Your task to perform on an android device: Open Google Maps and go to "Timeline" Image 0: 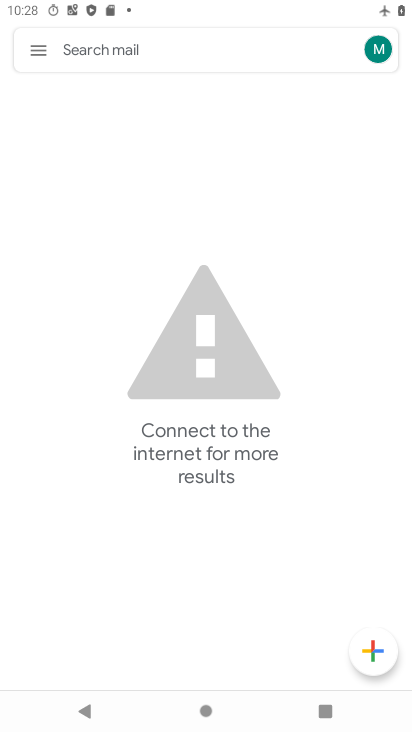
Step 0: press home button
Your task to perform on an android device: Open Google Maps and go to "Timeline" Image 1: 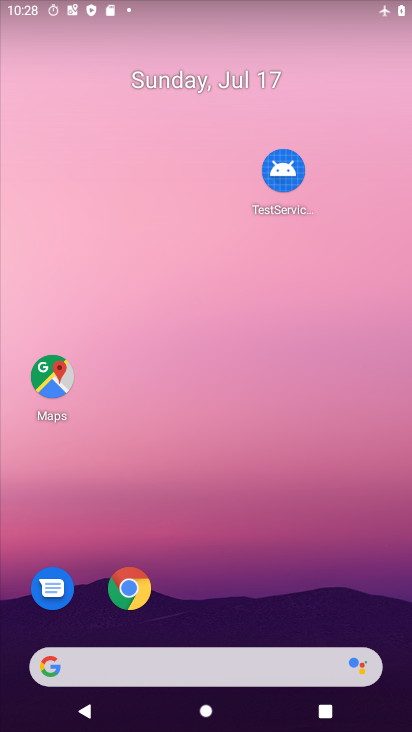
Step 1: drag from (199, 574) to (282, 177)
Your task to perform on an android device: Open Google Maps and go to "Timeline" Image 2: 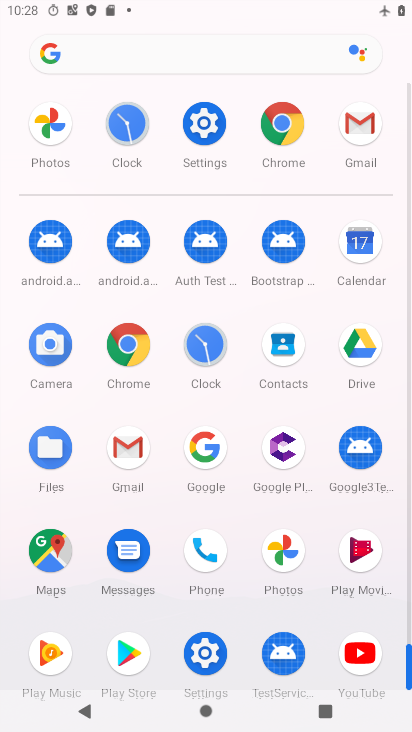
Step 2: drag from (239, 473) to (260, 186)
Your task to perform on an android device: Open Google Maps and go to "Timeline" Image 3: 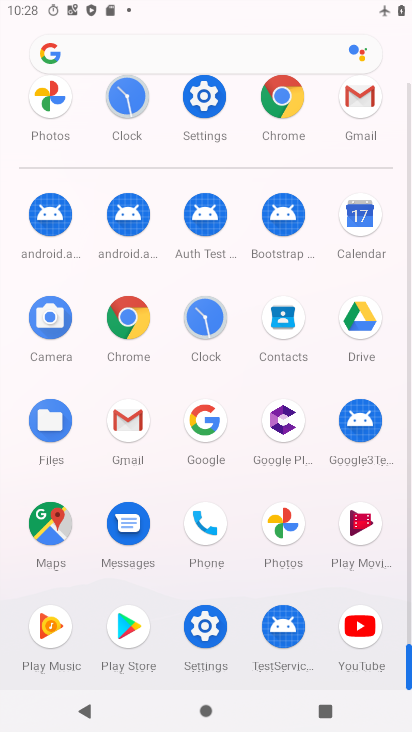
Step 3: click (60, 532)
Your task to perform on an android device: Open Google Maps and go to "Timeline" Image 4: 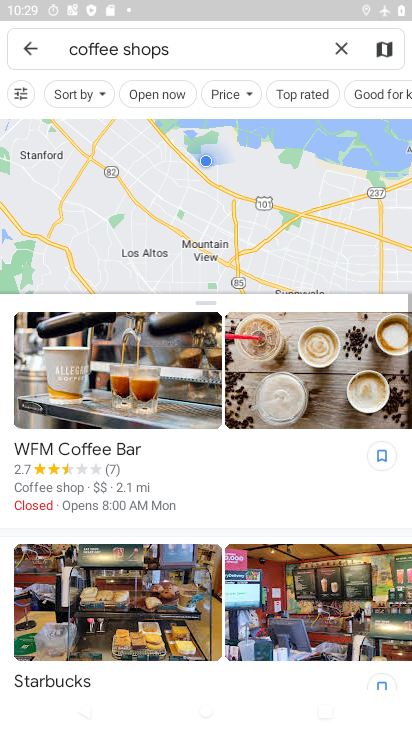
Step 4: click (33, 51)
Your task to perform on an android device: Open Google Maps and go to "Timeline" Image 5: 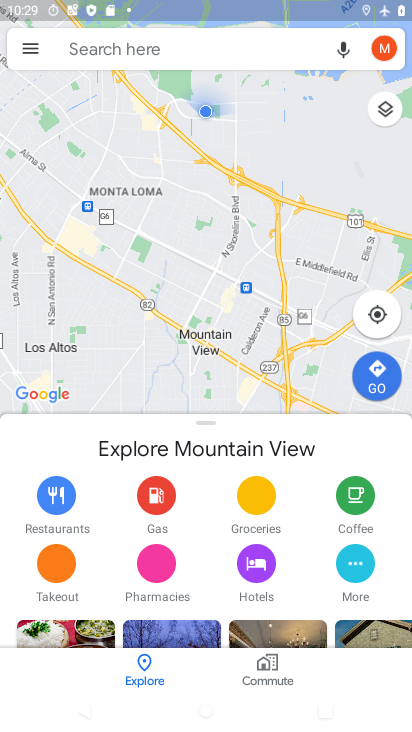
Step 5: click (33, 47)
Your task to perform on an android device: Open Google Maps and go to "Timeline" Image 6: 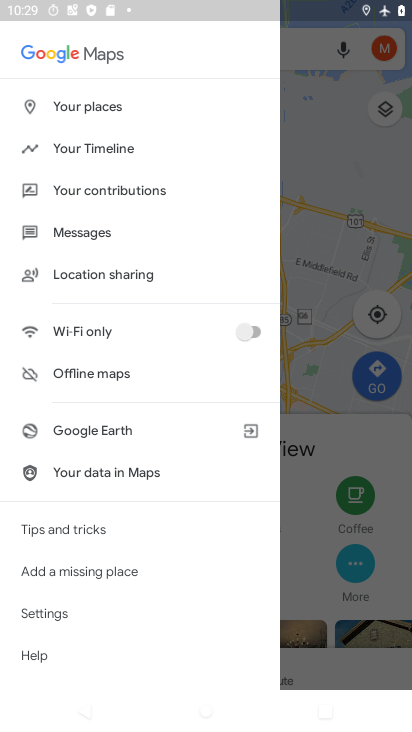
Step 6: click (119, 149)
Your task to perform on an android device: Open Google Maps and go to "Timeline" Image 7: 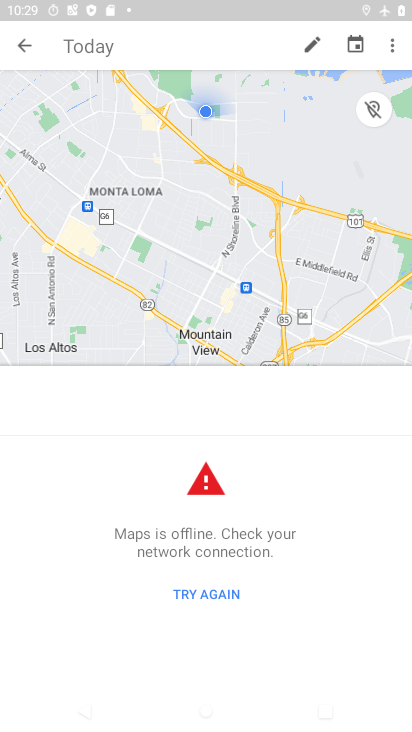
Step 7: task complete